Your task to perform on an android device: open a bookmark in the chrome app Image 0: 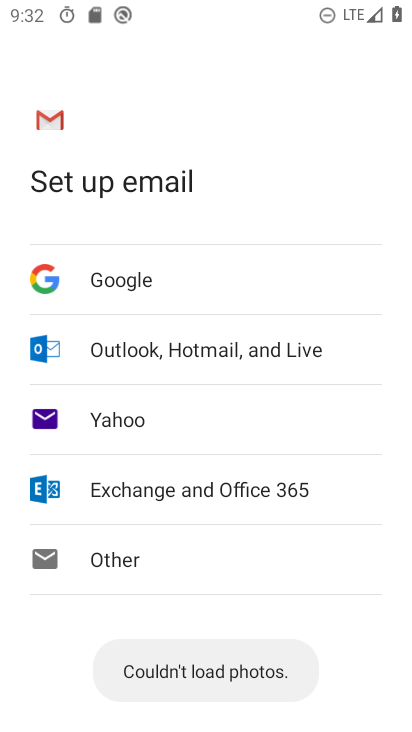
Step 0: press home button
Your task to perform on an android device: open a bookmark in the chrome app Image 1: 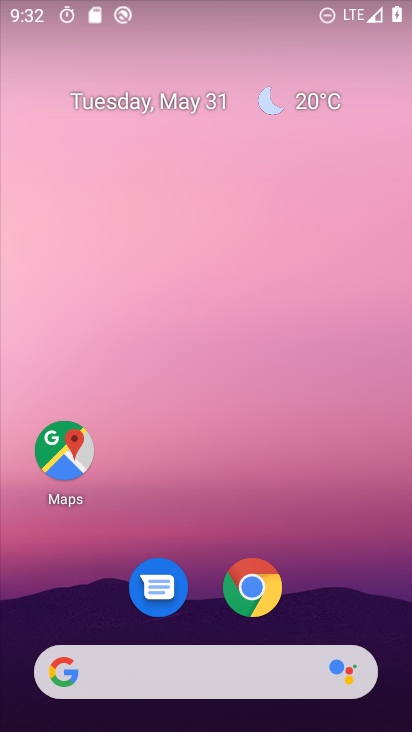
Step 1: click (261, 583)
Your task to perform on an android device: open a bookmark in the chrome app Image 2: 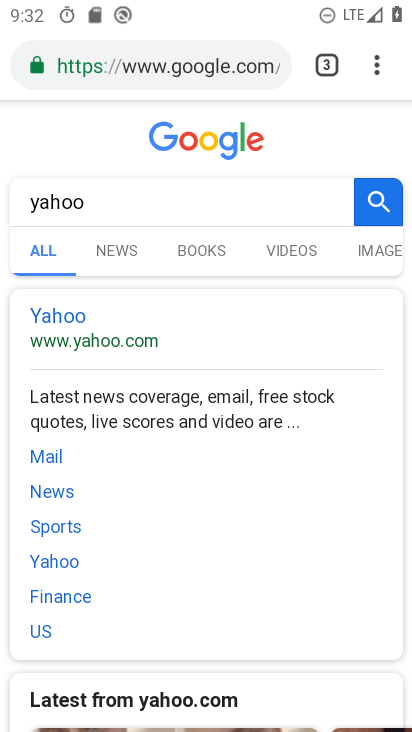
Step 2: click (382, 63)
Your task to perform on an android device: open a bookmark in the chrome app Image 3: 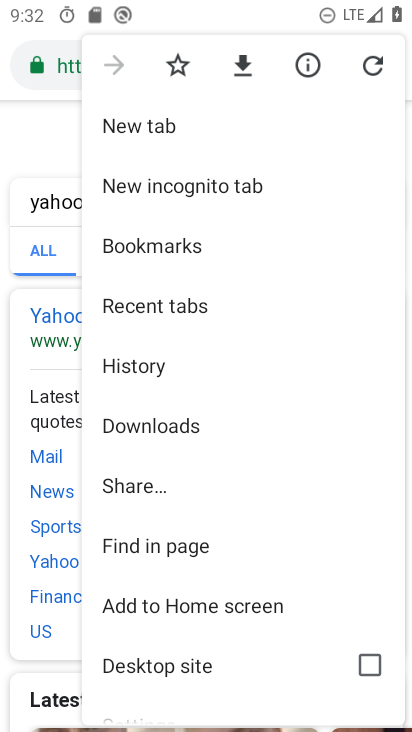
Step 3: click (127, 249)
Your task to perform on an android device: open a bookmark in the chrome app Image 4: 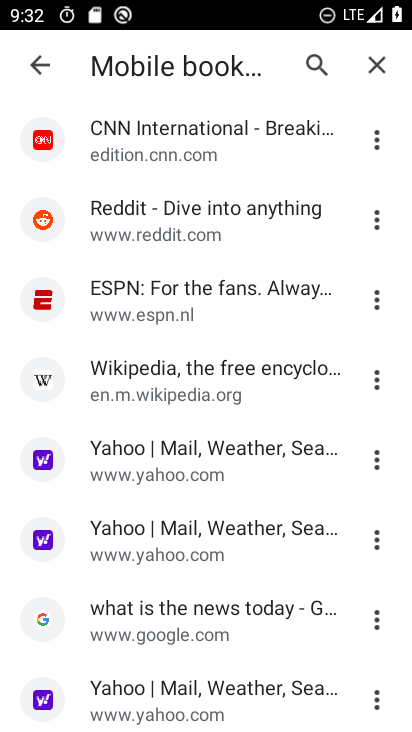
Step 4: click (206, 519)
Your task to perform on an android device: open a bookmark in the chrome app Image 5: 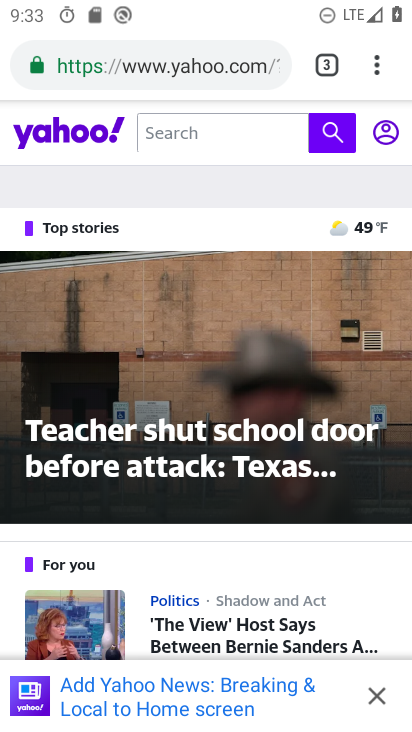
Step 5: task complete